Your task to perform on an android device: turn pop-ups off in chrome Image 0: 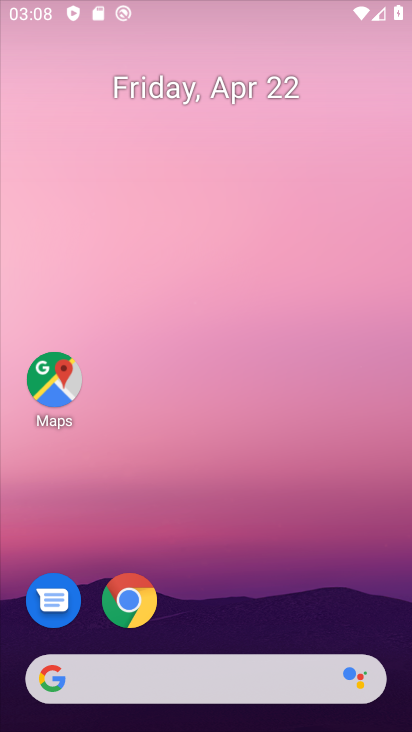
Step 0: drag from (280, 389) to (275, 112)
Your task to perform on an android device: turn pop-ups off in chrome Image 1: 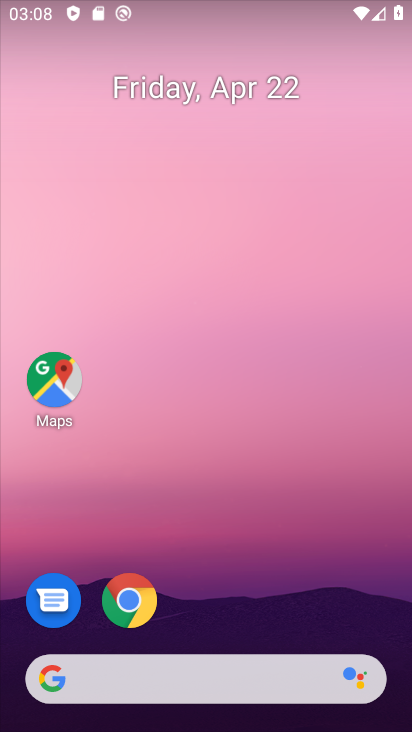
Step 1: drag from (258, 589) to (336, 108)
Your task to perform on an android device: turn pop-ups off in chrome Image 2: 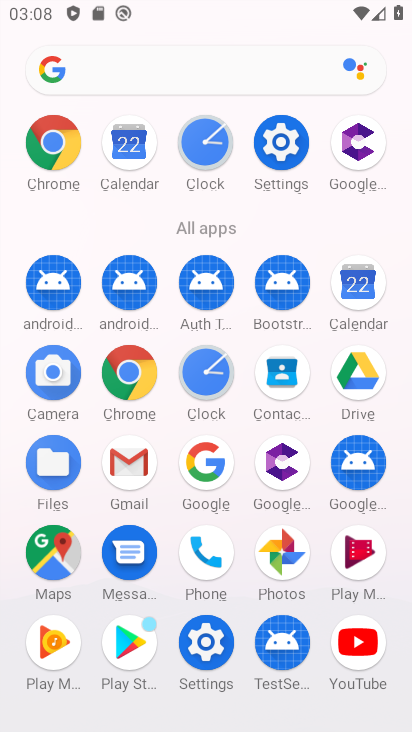
Step 2: click (51, 164)
Your task to perform on an android device: turn pop-ups off in chrome Image 3: 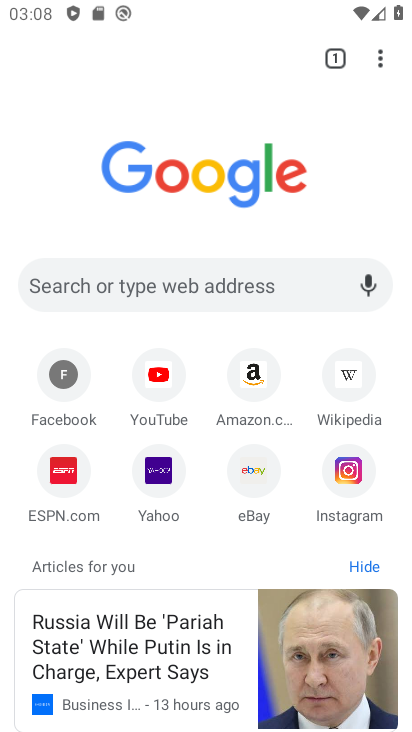
Step 3: click (379, 65)
Your task to perform on an android device: turn pop-ups off in chrome Image 4: 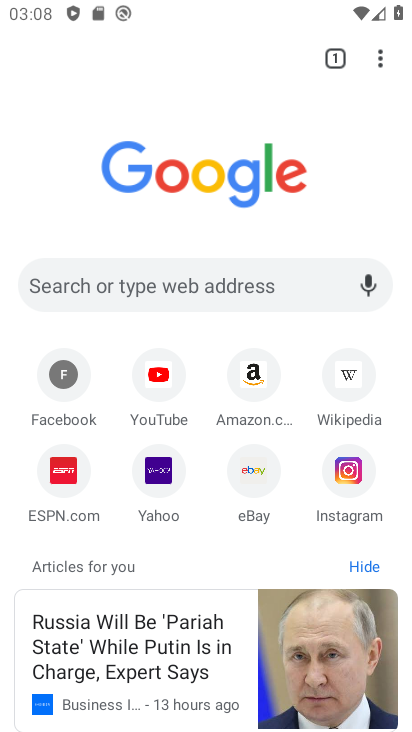
Step 4: click (380, 63)
Your task to perform on an android device: turn pop-ups off in chrome Image 5: 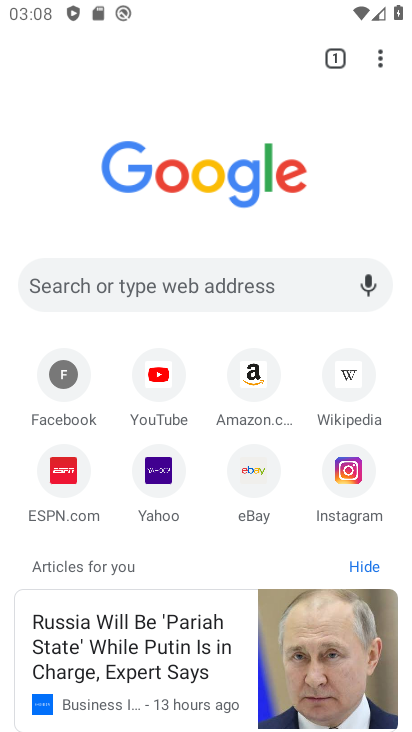
Step 5: click (382, 61)
Your task to perform on an android device: turn pop-ups off in chrome Image 6: 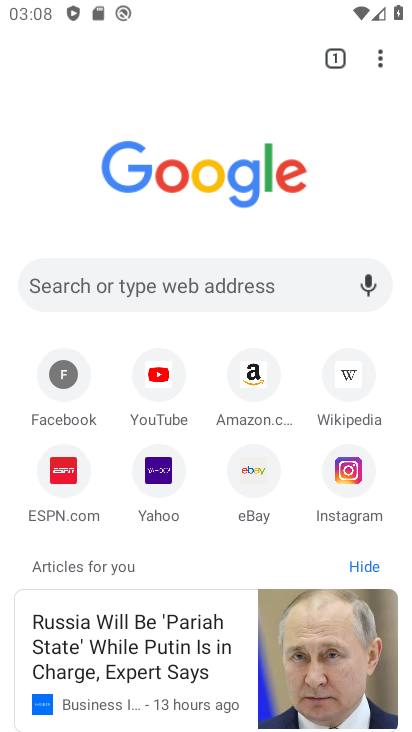
Step 6: click (380, 60)
Your task to perform on an android device: turn pop-ups off in chrome Image 7: 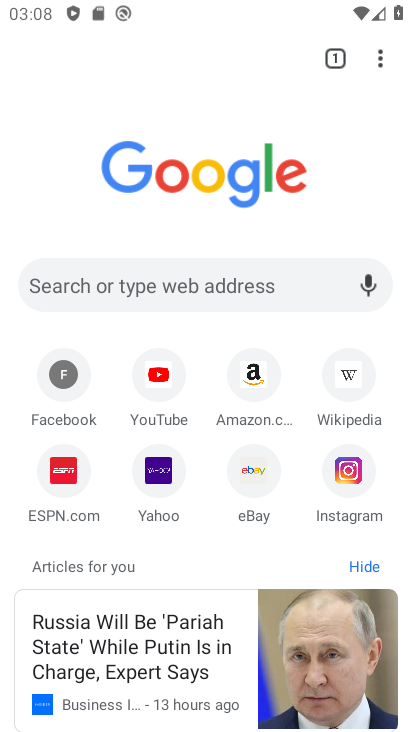
Step 7: click (380, 64)
Your task to perform on an android device: turn pop-ups off in chrome Image 8: 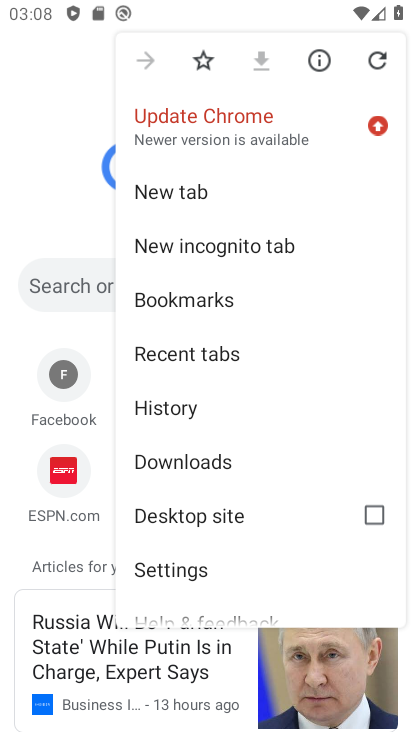
Step 8: drag from (247, 507) to (250, 271)
Your task to perform on an android device: turn pop-ups off in chrome Image 9: 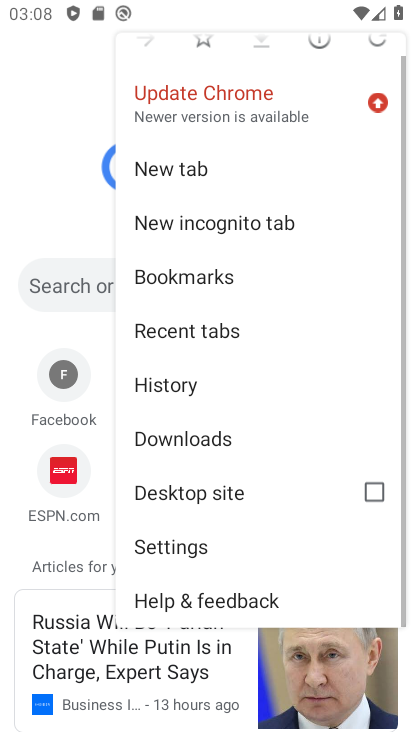
Step 9: click (165, 559)
Your task to perform on an android device: turn pop-ups off in chrome Image 10: 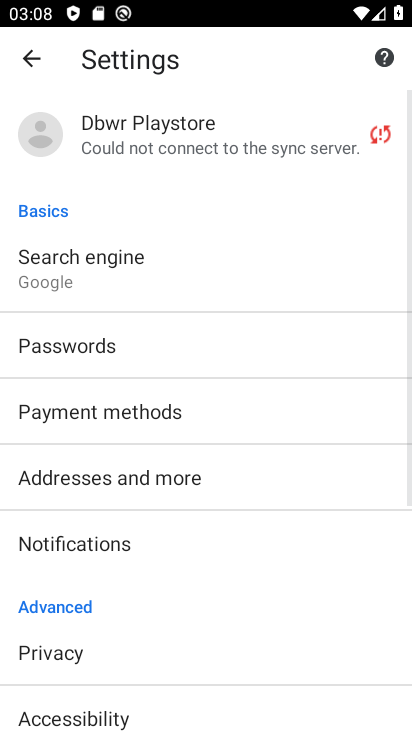
Step 10: drag from (150, 565) to (148, 311)
Your task to perform on an android device: turn pop-ups off in chrome Image 11: 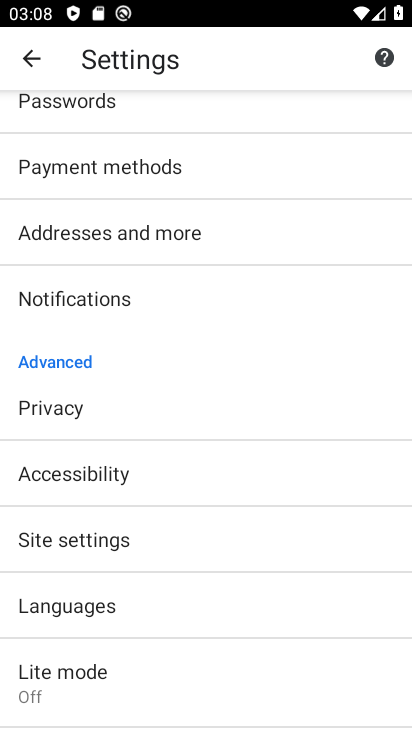
Step 11: drag from (191, 640) to (212, 472)
Your task to perform on an android device: turn pop-ups off in chrome Image 12: 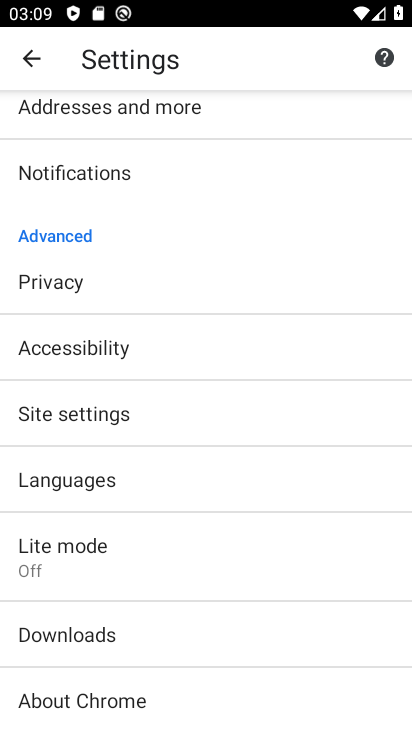
Step 12: click (109, 423)
Your task to perform on an android device: turn pop-ups off in chrome Image 13: 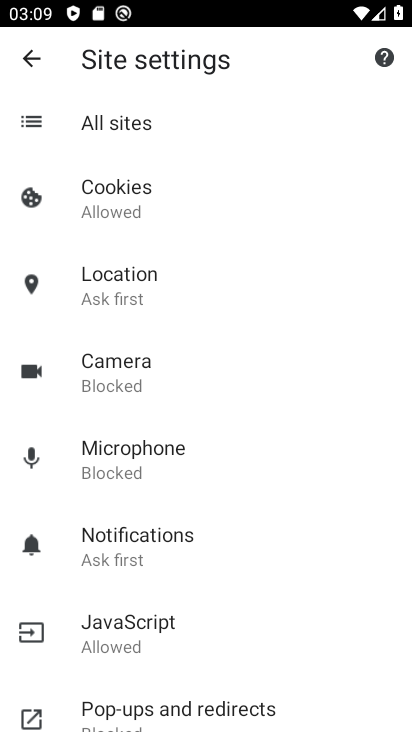
Step 13: drag from (188, 551) to (226, 297)
Your task to perform on an android device: turn pop-ups off in chrome Image 14: 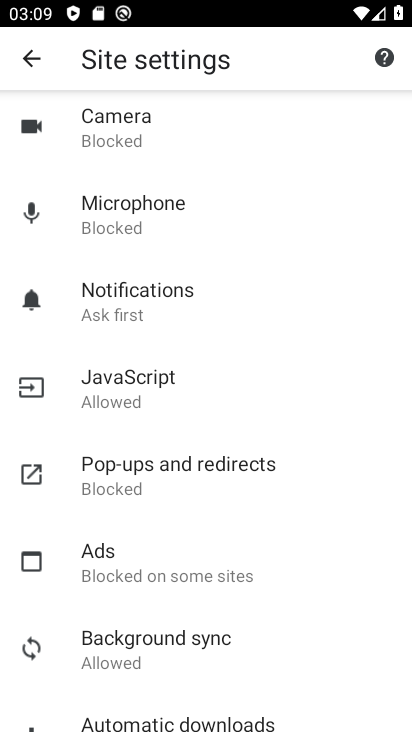
Step 14: click (158, 486)
Your task to perform on an android device: turn pop-ups off in chrome Image 15: 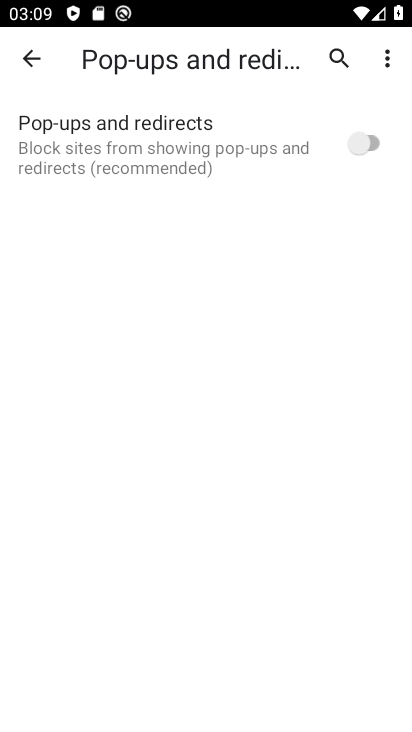
Step 15: click (365, 149)
Your task to perform on an android device: turn pop-ups off in chrome Image 16: 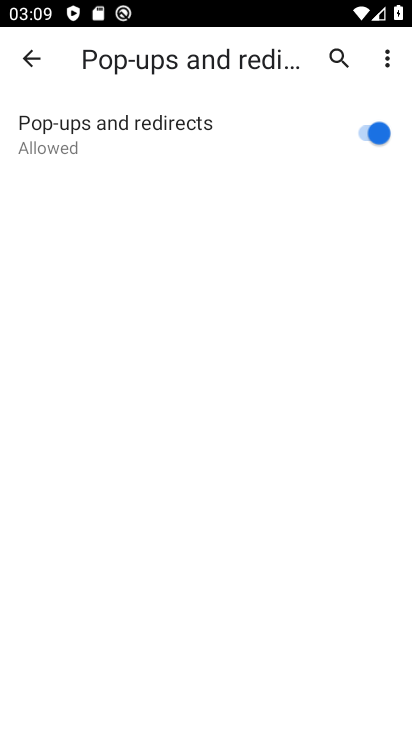
Step 16: task complete